Your task to perform on an android device: Open battery settings Image 0: 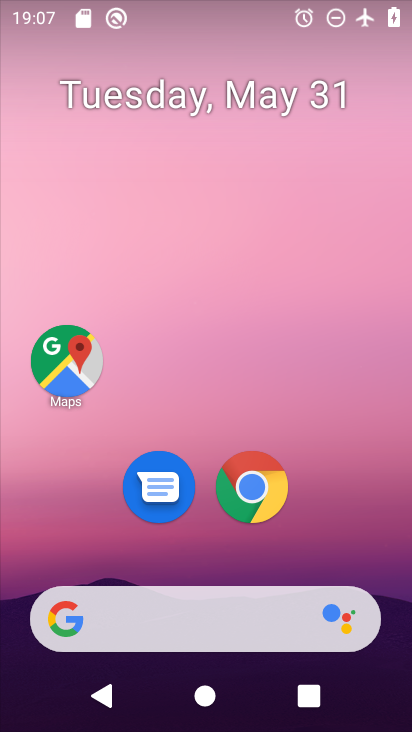
Step 0: drag from (346, 504) to (249, 122)
Your task to perform on an android device: Open battery settings Image 1: 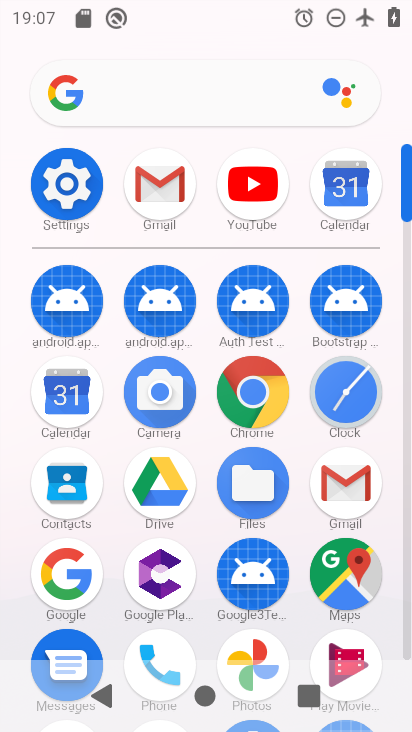
Step 1: click (61, 185)
Your task to perform on an android device: Open battery settings Image 2: 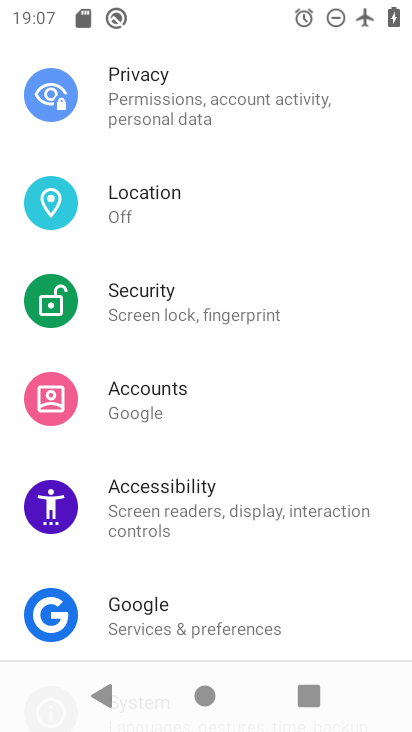
Step 2: drag from (242, 234) to (287, 729)
Your task to perform on an android device: Open battery settings Image 3: 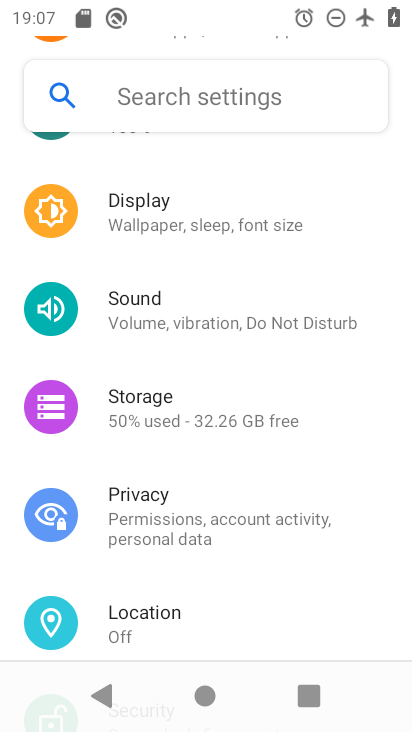
Step 3: drag from (260, 260) to (220, 697)
Your task to perform on an android device: Open battery settings Image 4: 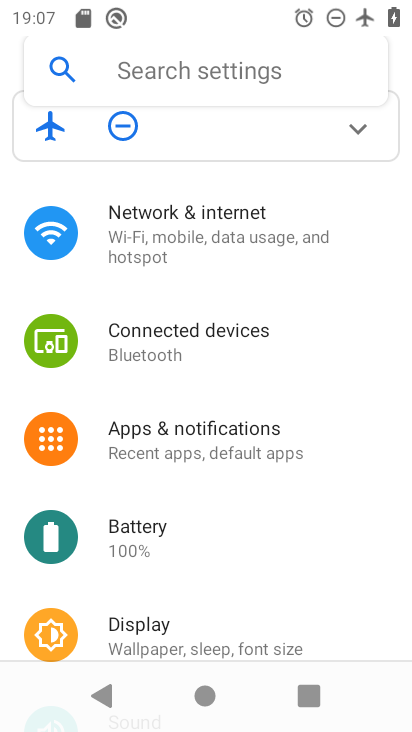
Step 4: click (132, 524)
Your task to perform on an android device: Open battery settings Image 5: 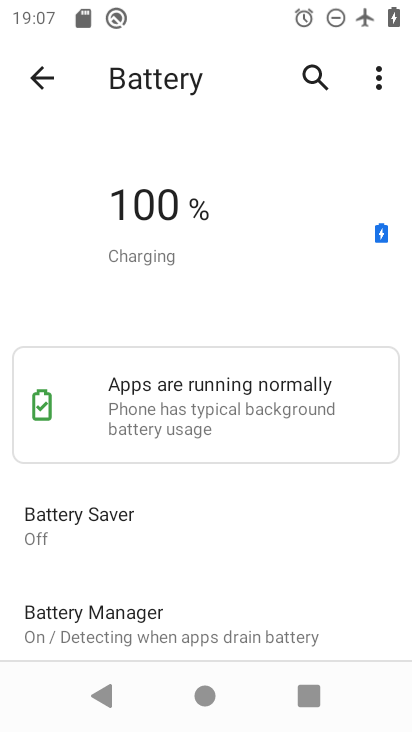
Step 5: task complete